Your task to perform on an android device: set default search engine in the chrome app Image 0: 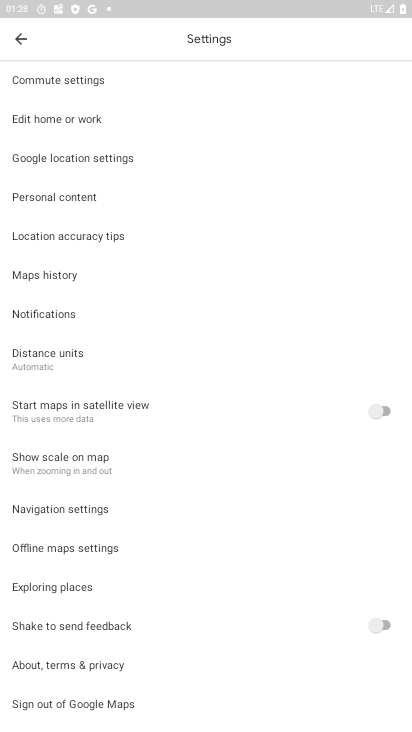
Step 0: press home button
Your task to perform on an android device: set default search engine in the chrome app Image 1: 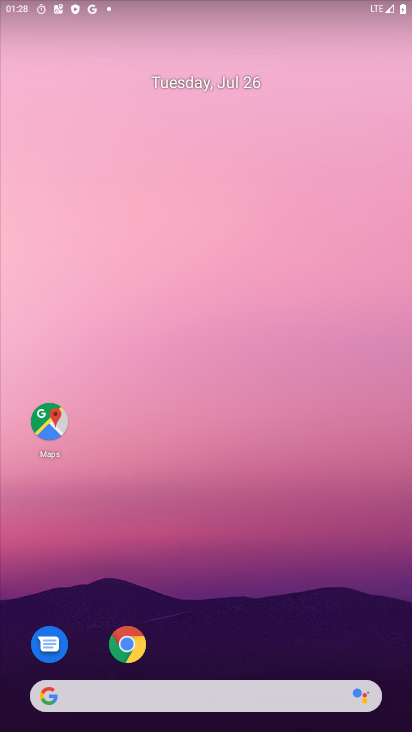
Step 1: click (127, 650)
Your task to perform on an android device: set default search engine in the chrome app Image 2: 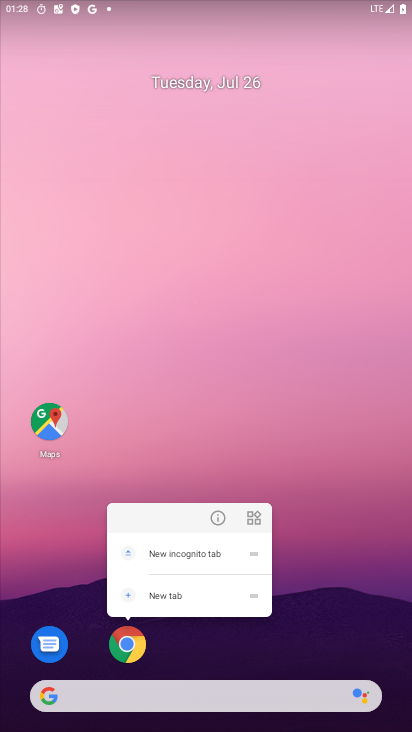
Step 2: click (127, 650)
Your task to perform on an android device: set default search engine in the chrome app Image 3: 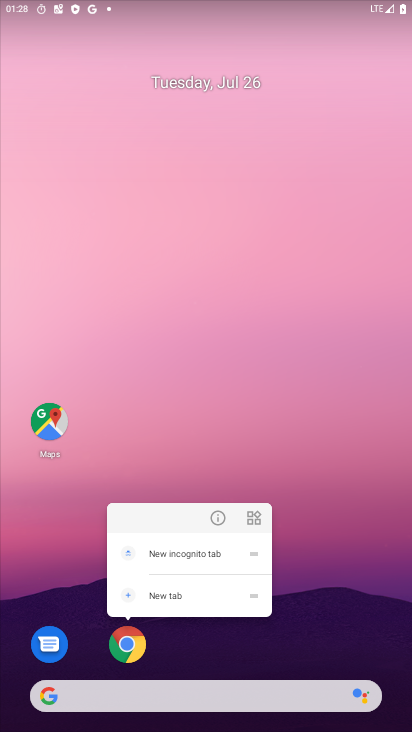
Step 3: click (127, 650)
Your task to perform on an android device: set default search engine in the chrome app Image 4: 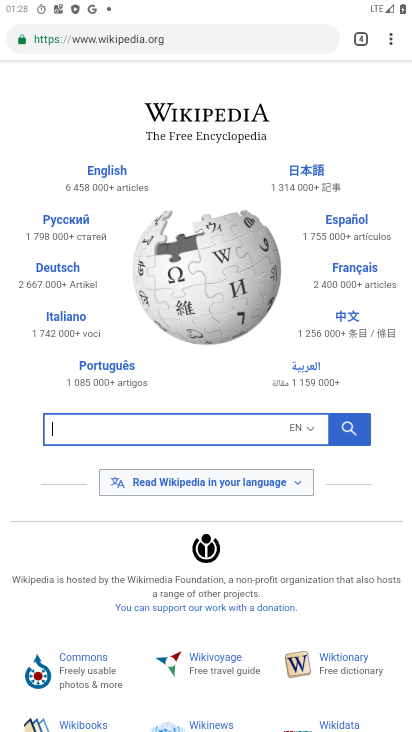
Step 4: drag from (394, 36) to (254, 470)
Your task to perform on an android device: set default search engine in the chrome app Image 5: 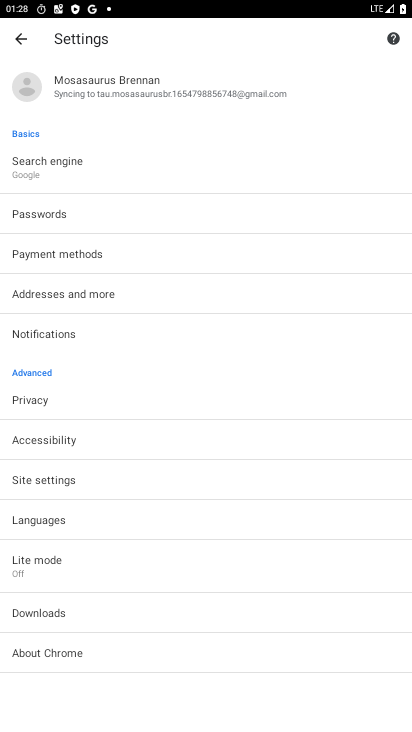
Step 5: click (35, 168)
Your task to perform on an android device: set default search engine in the chrome app Image 6: 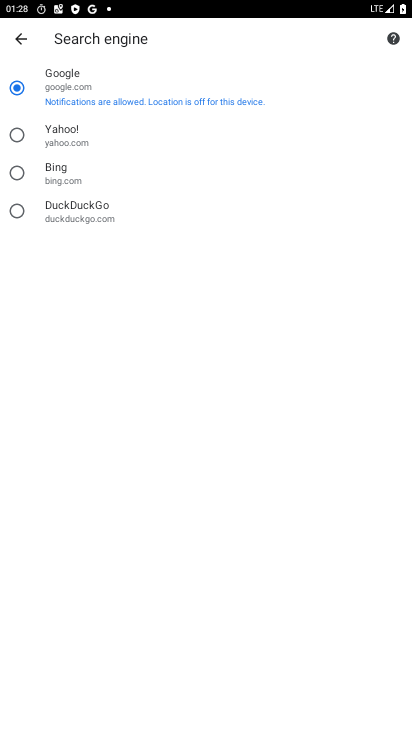
Step 6: click (26, 135)
Your task to perform on an android device: set default search engine in the chrome app Image 7: 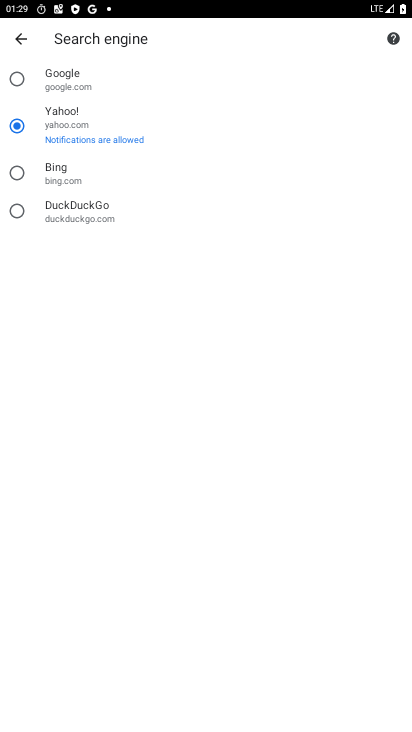
Step 7: task complete